Your task to perform on an android device: uninstall "LinkedIn" Image 0: 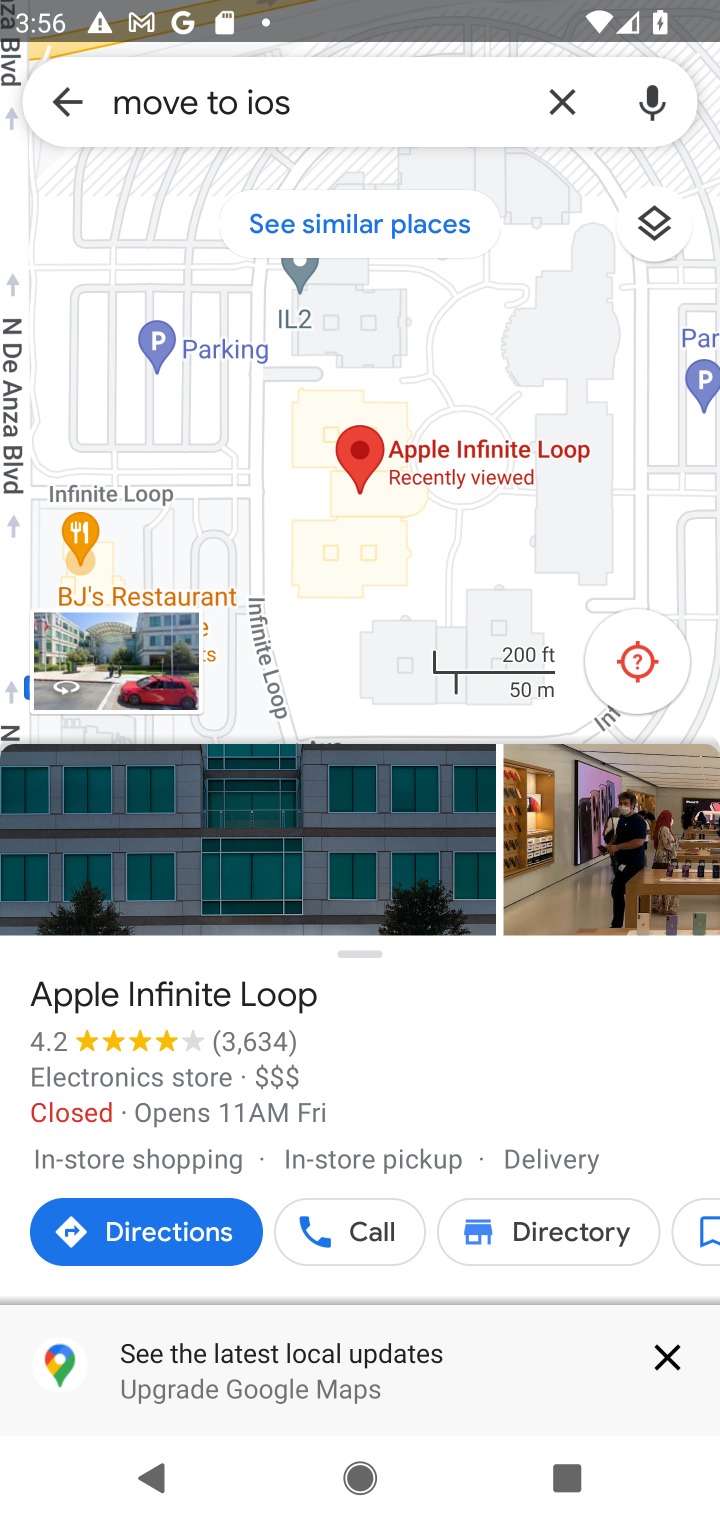
Step 0: press home button
Your task to perform on an android device: uninstall "LinkedIn" Image 1: 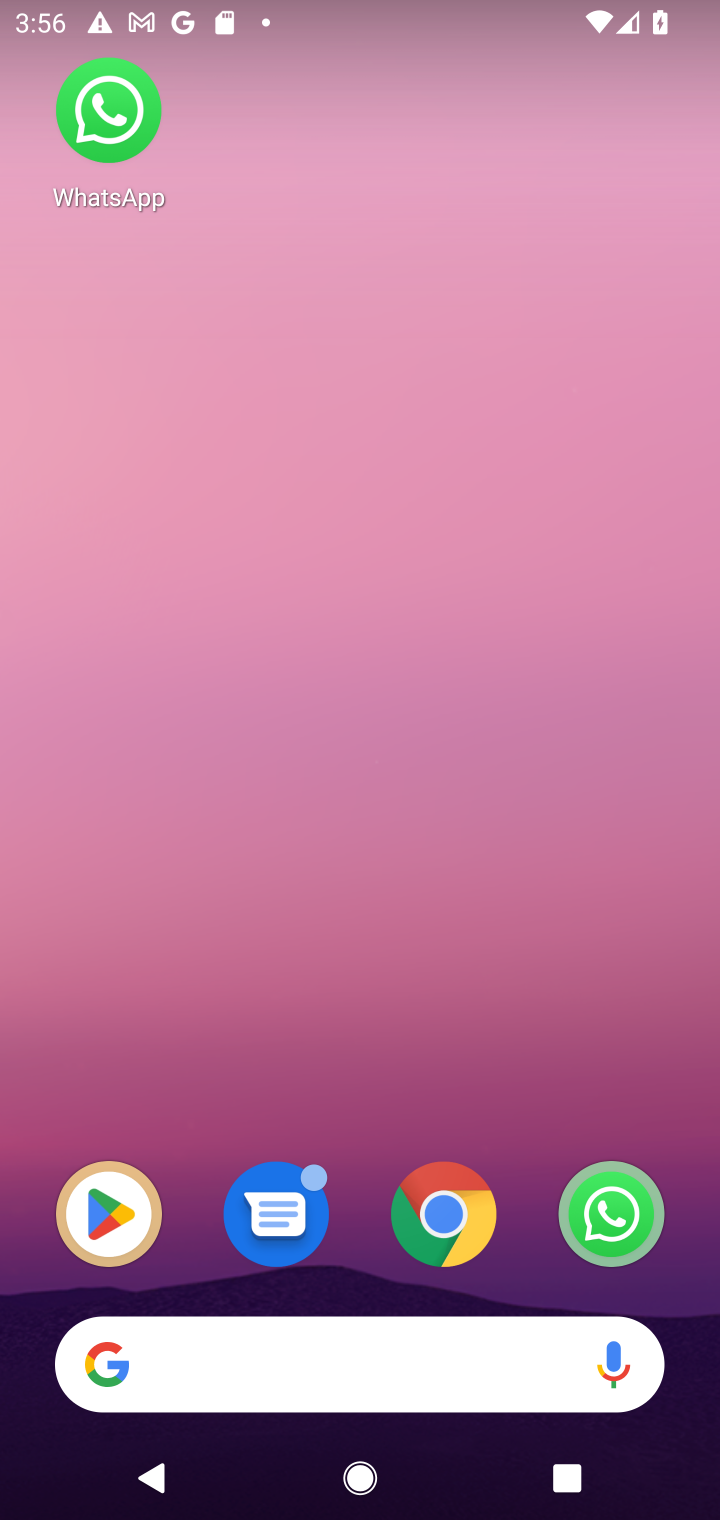
Step 1: click (98, 1180)
Your task to perform on an android device: uninstall "LinkedIn" Image 2: 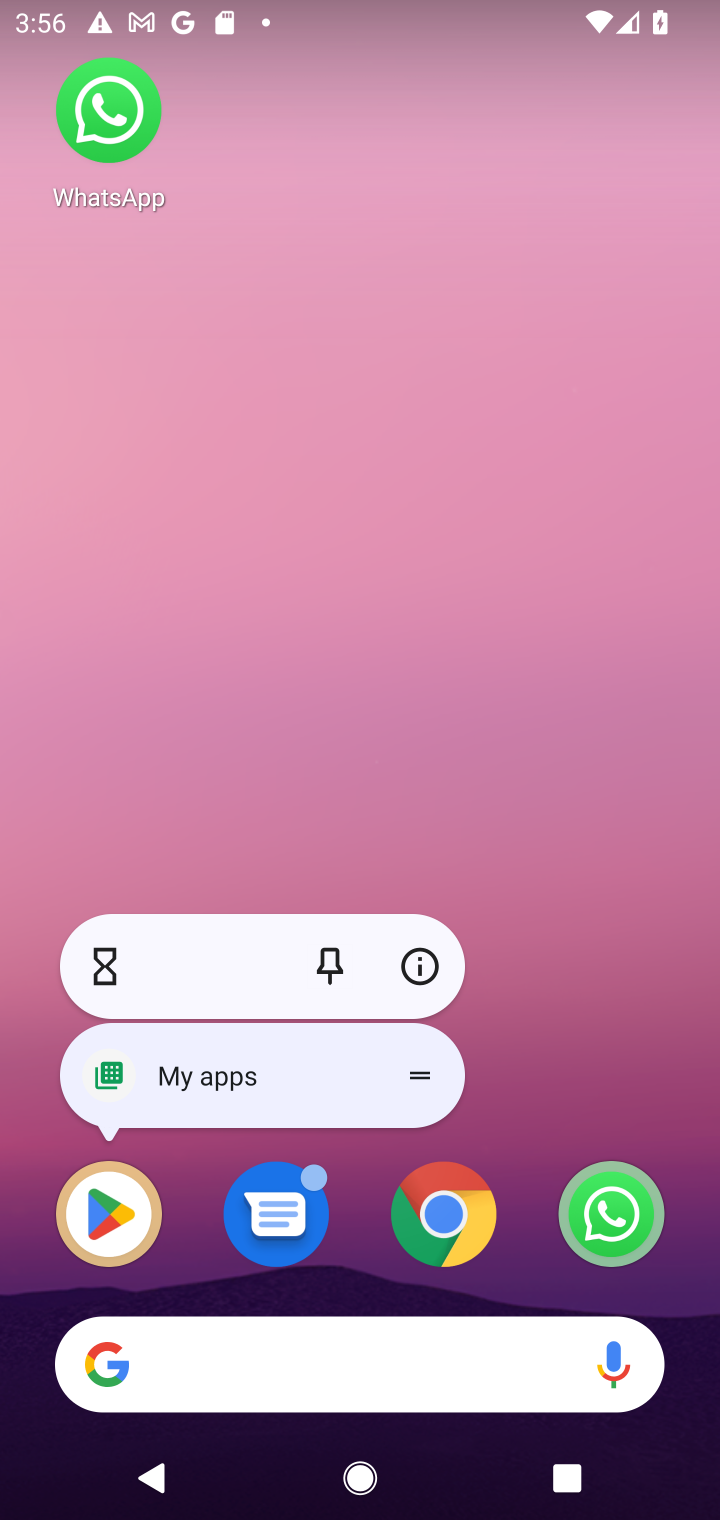
Step 2: click (91, 1225)
Your task to perform on an android device: uninstall "LinkedIn" Image 3: 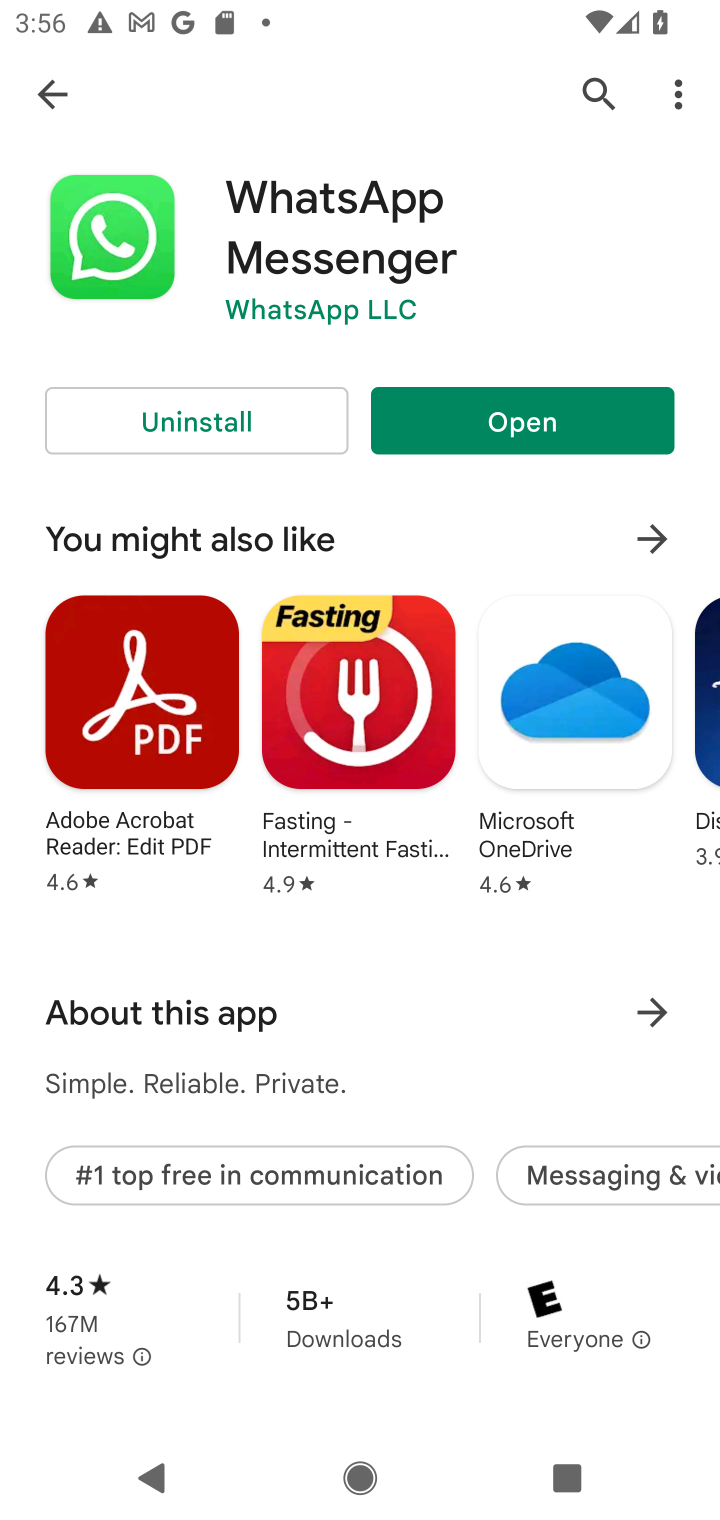
Step 3: click (85, 1231)
Your task to perform on an android device: uninstall "LinkedIn" Image 4: 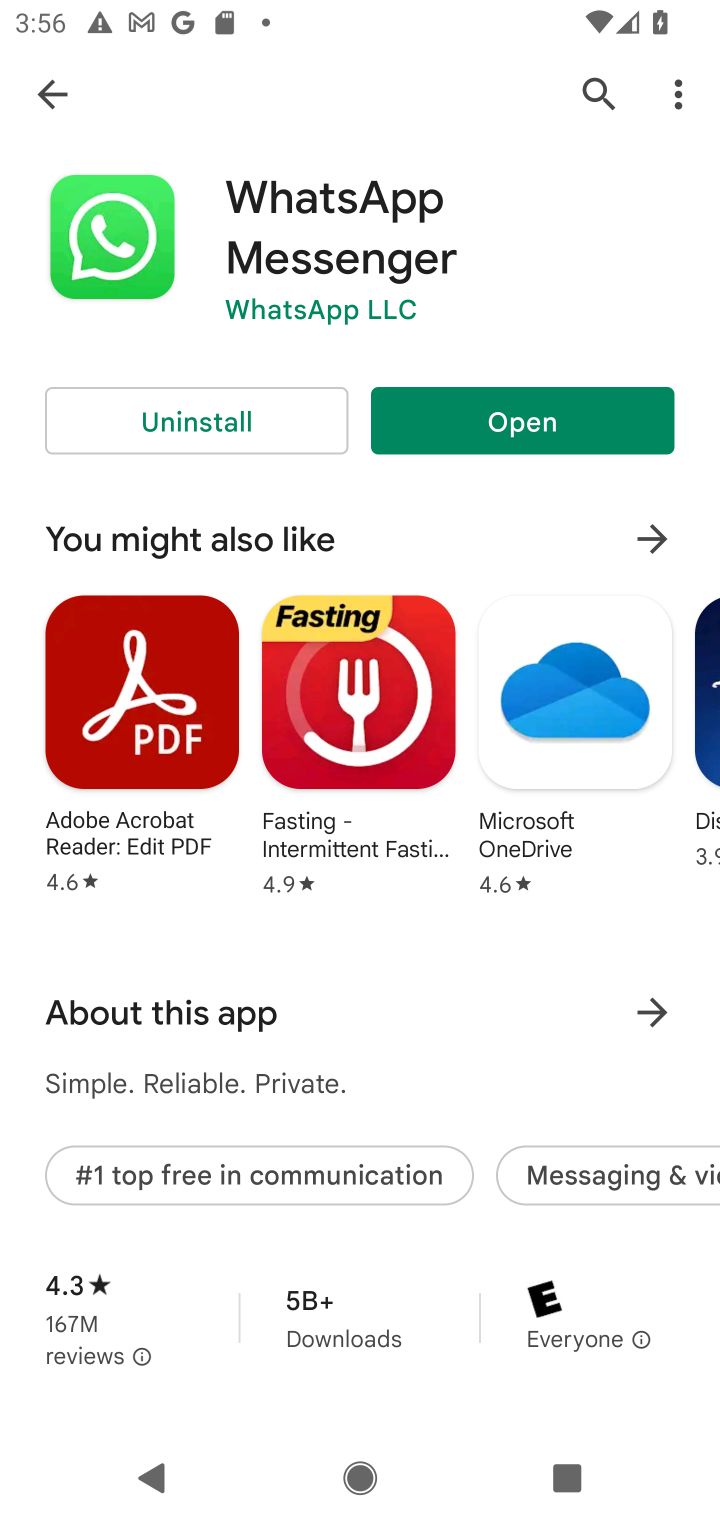
Step 4: click (40, 94)
Your task to perform on an android device: uninstall "LinkedIn" Image 5: 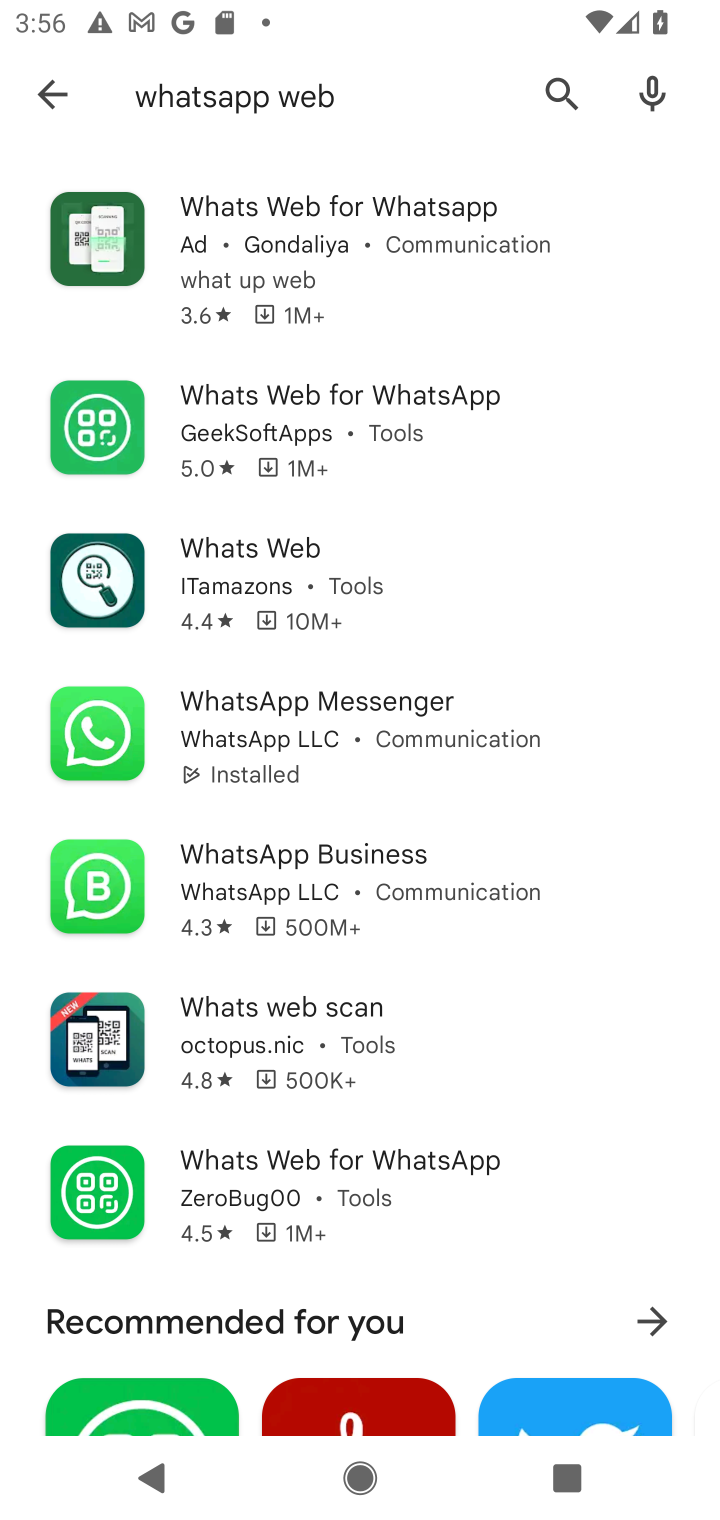
Step 5: click (314, 99)
Your task to perform on an android device: uninstall "LinkedIn" Image 6: 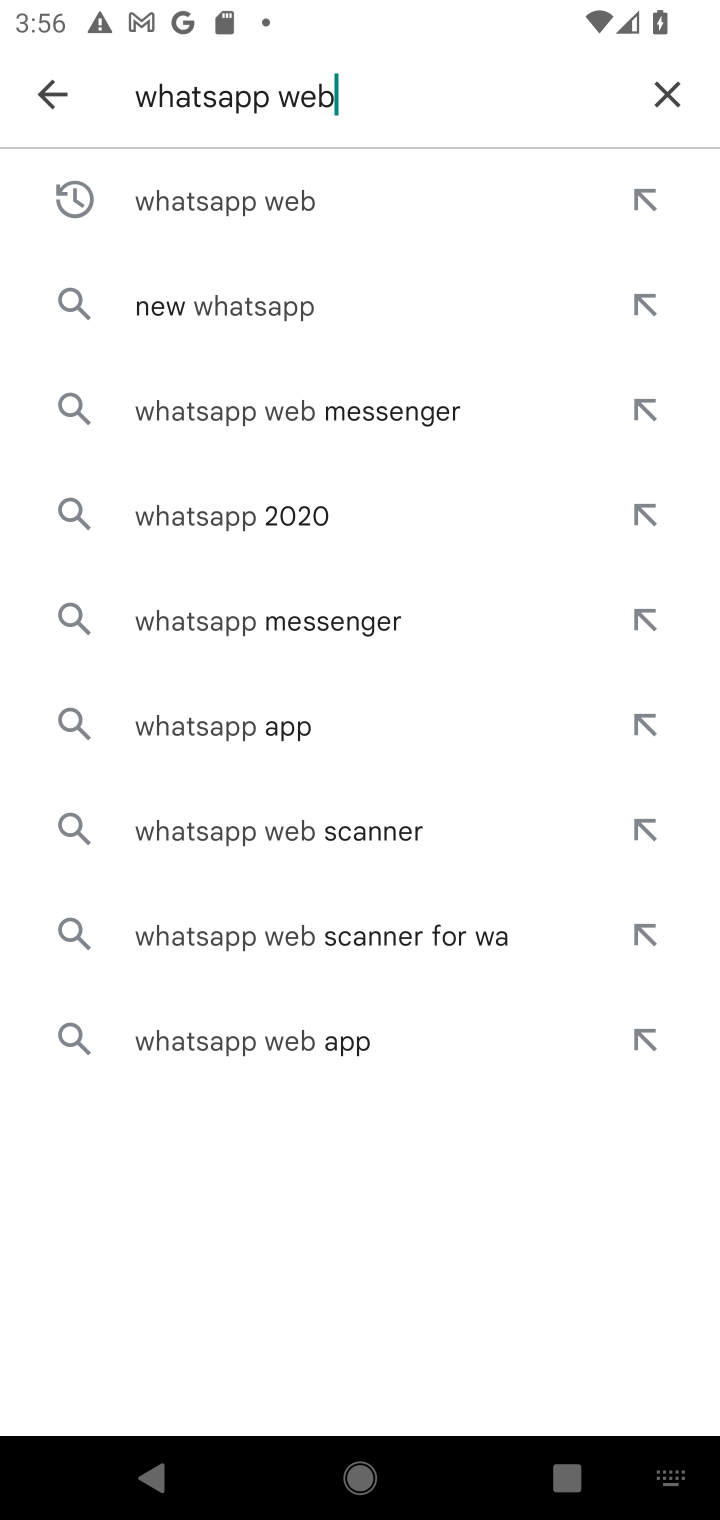
Step 6: click (671, 87)
Your task to perform on an android device: uninstall "LinkedIn" Image 7: 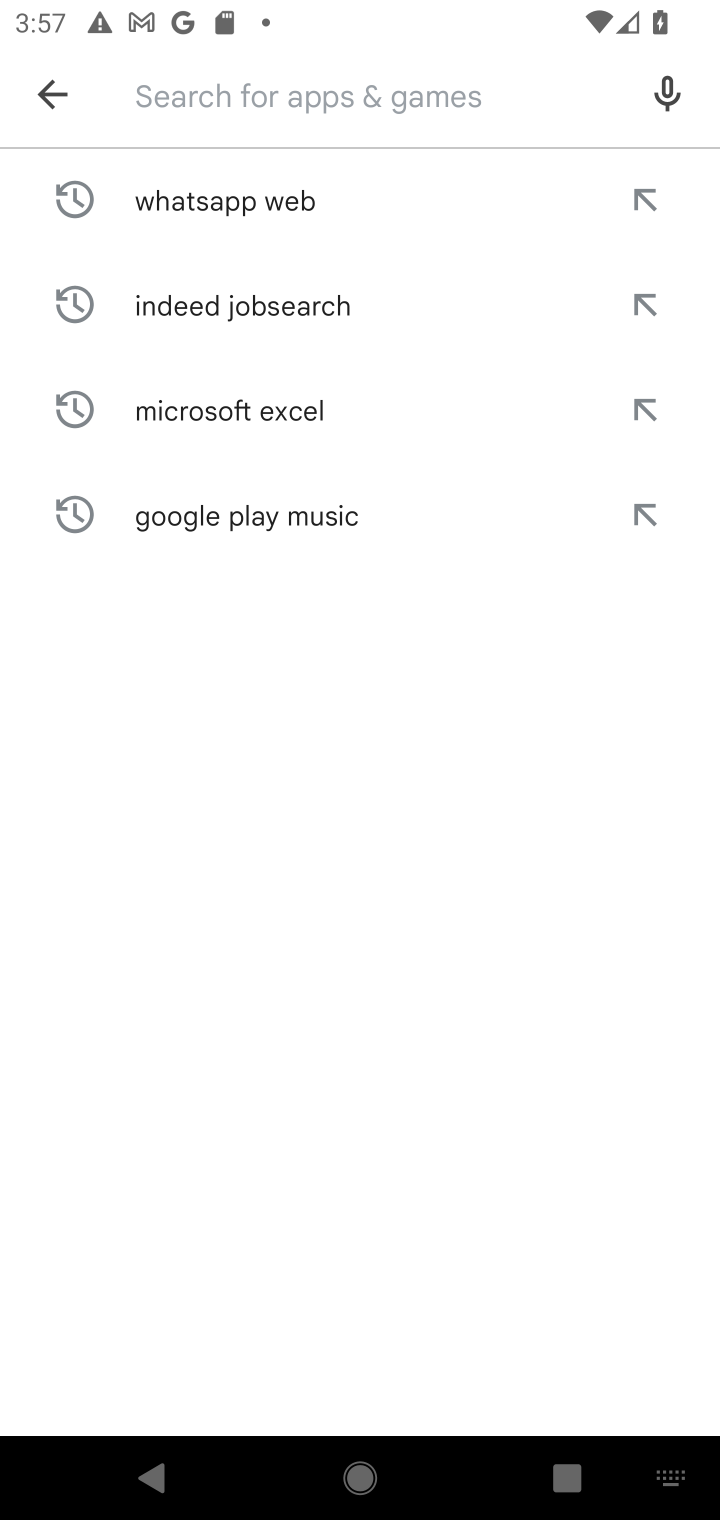
Step 7: type "linkedin"
Your task to perform on an android device: uninstall "LinkedIn" Image 8: 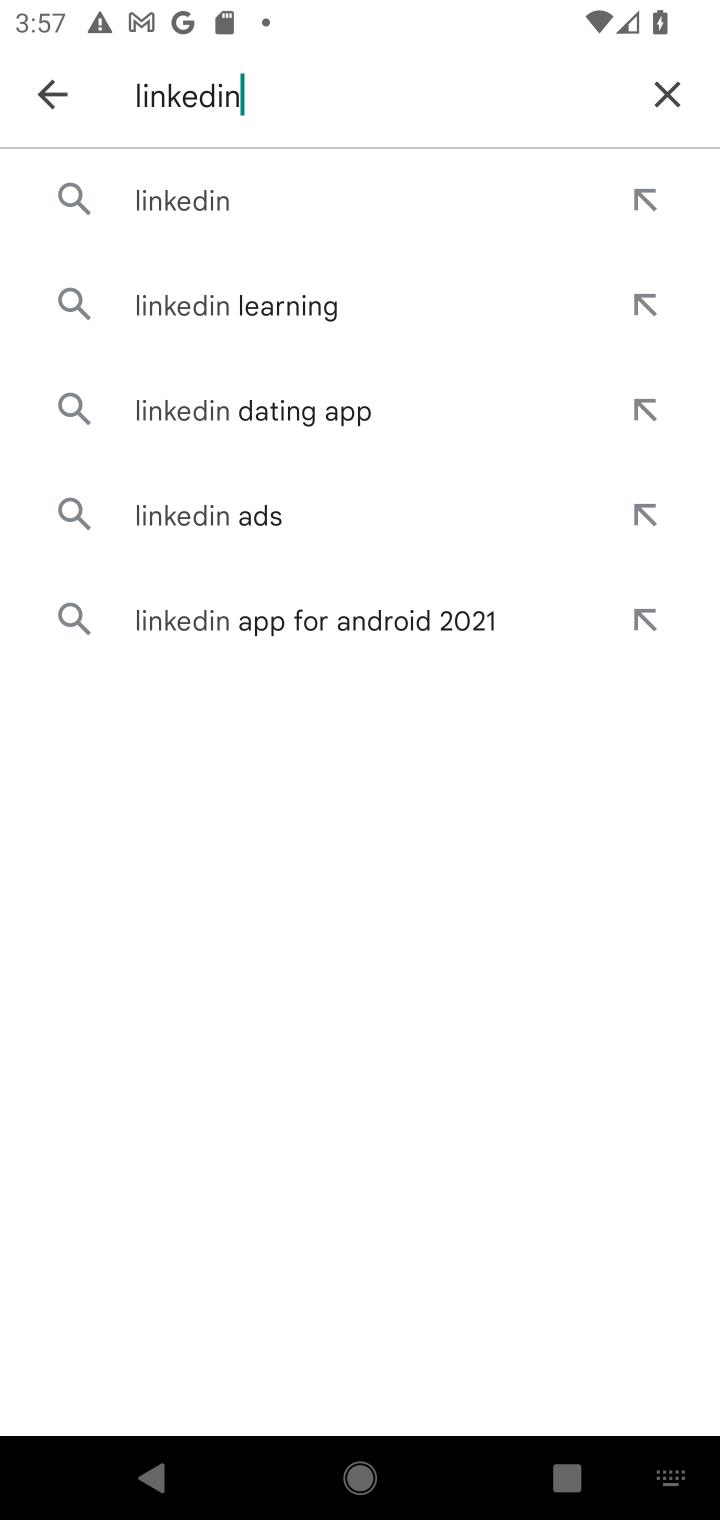
Step 8: click (302, 197)
Your task to perform on an android device: uninstall "LinkedIn" Image 9: 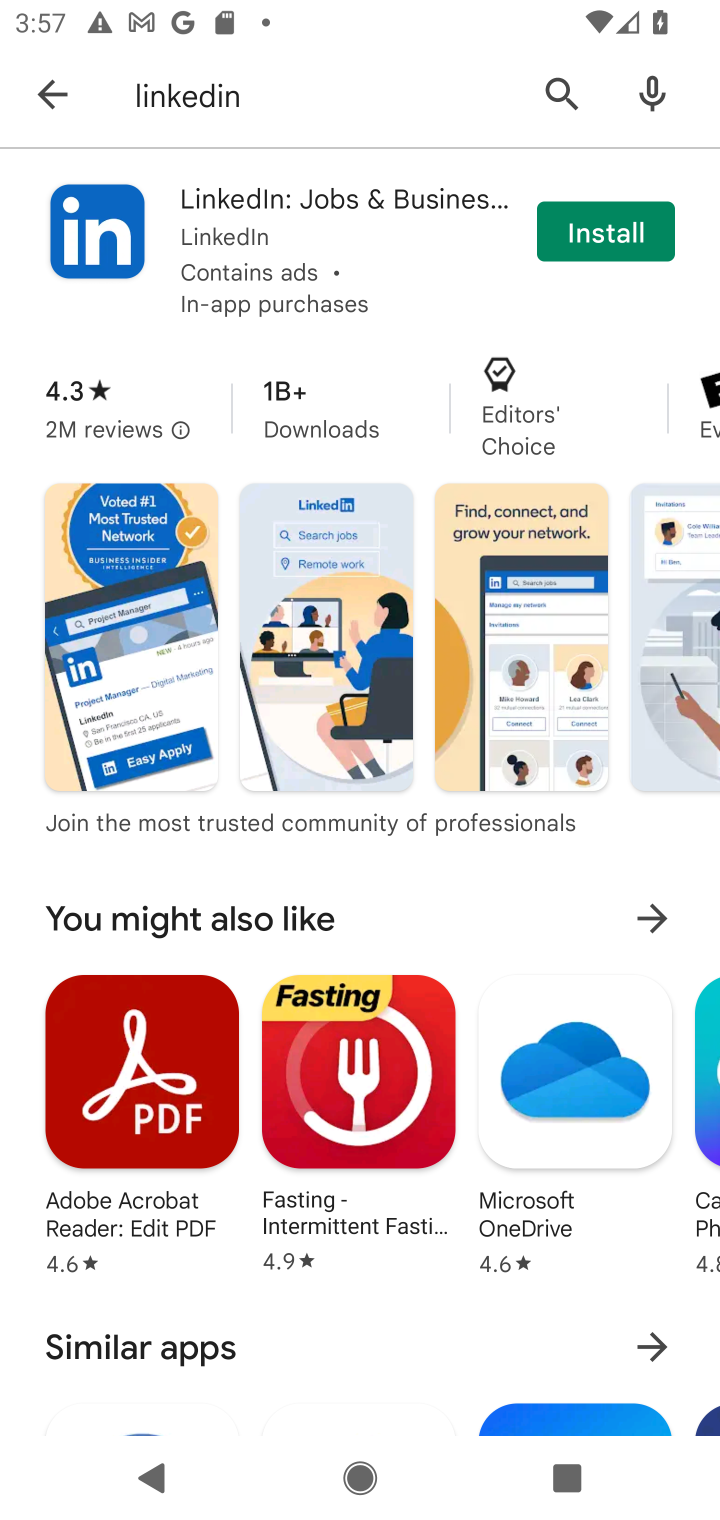
Step 9: task complete